Your task to perform on an android device: open app "Clock" (install if not already installed) Image 0: 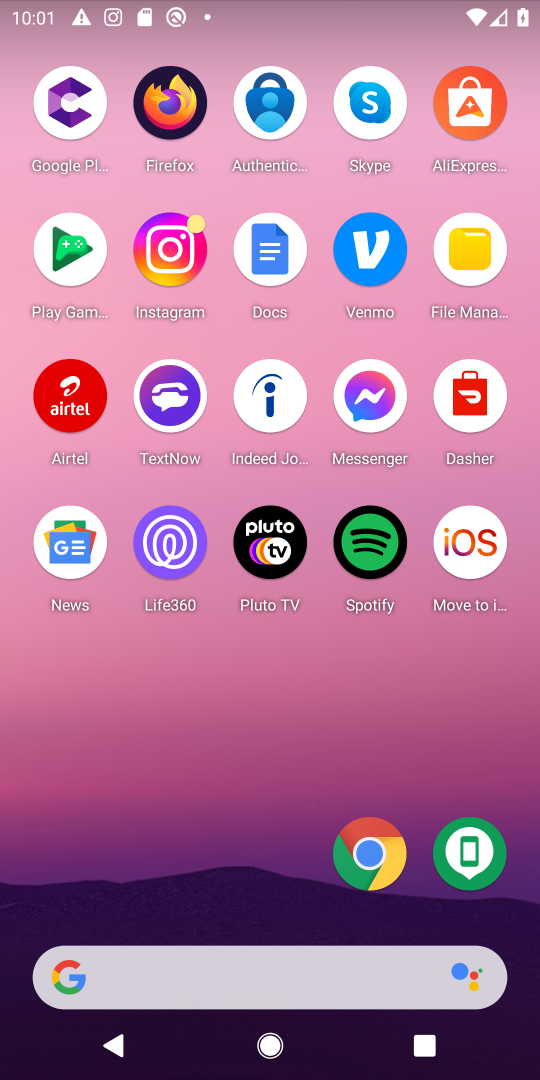
Step 0: drag from (217, 828) to (215, 29)
Your task to perform on an android device: open app "Clock" (install if not already installed) Image 1: 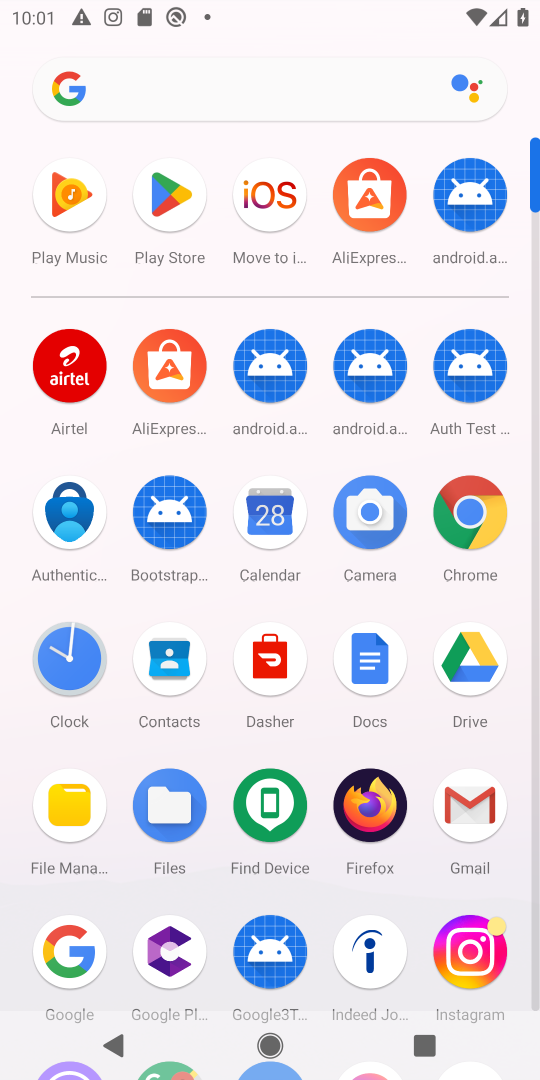
Step 1: click (158, 243)
Your task to perform on an android device: open app "Clock" (install if not already installed) Image 2: 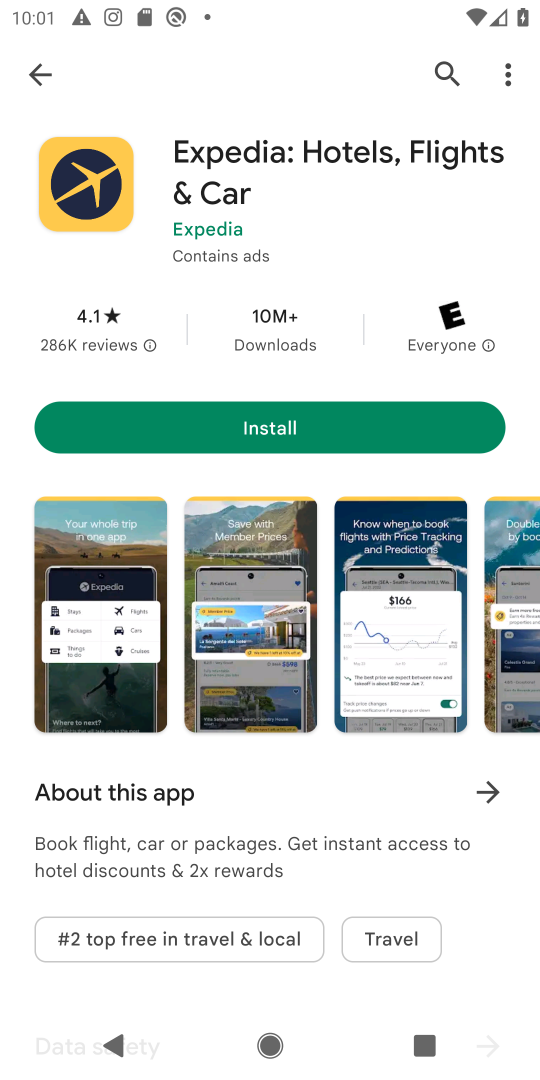
Step 2: click (40, 67)
Your task to perform on an android device: open app "Clock" (install if not already installed) Image 3: 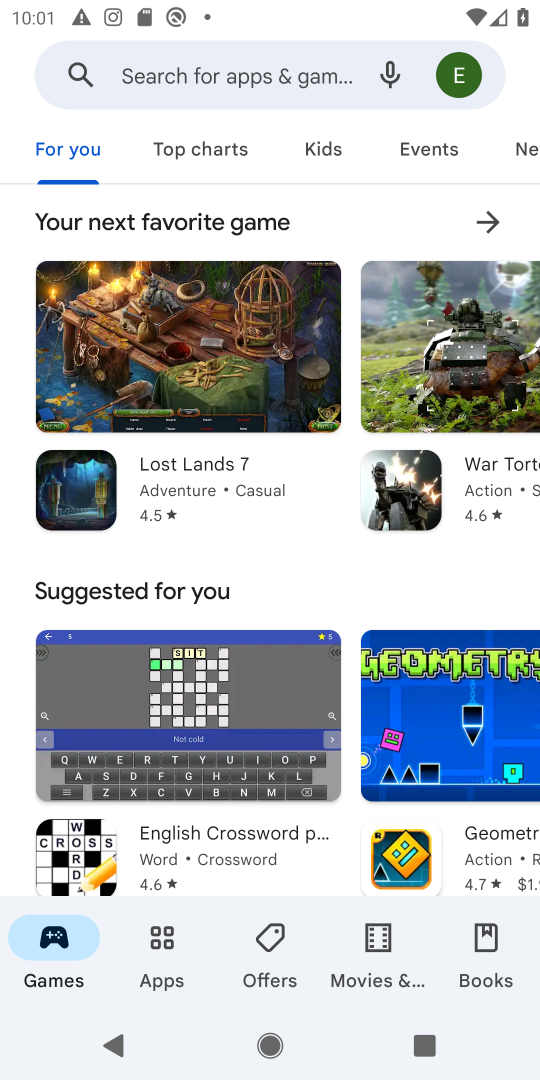
Step 3: click (194, 67)
Your task to perform on an android device: open app "Clock" (install if not already installed) Image 4: 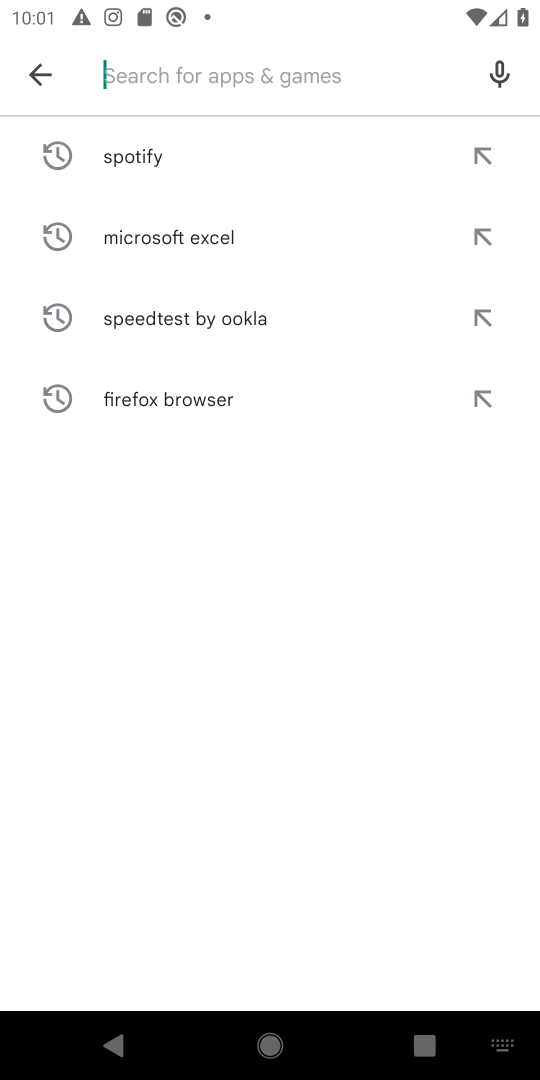
Step 4: type "Clock"
Your task to perform on an android device: open app "Clock" (install if not already installed) Image 5: 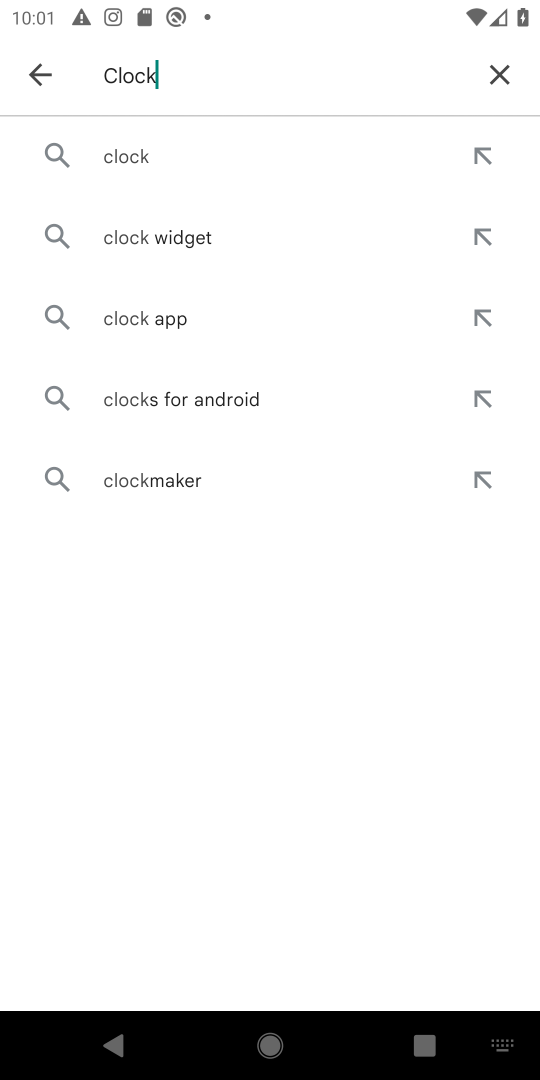
Step 5: click (124, 158)
Your task to perform on an android device: open app "Clock" (install if not already installed) Image 6: 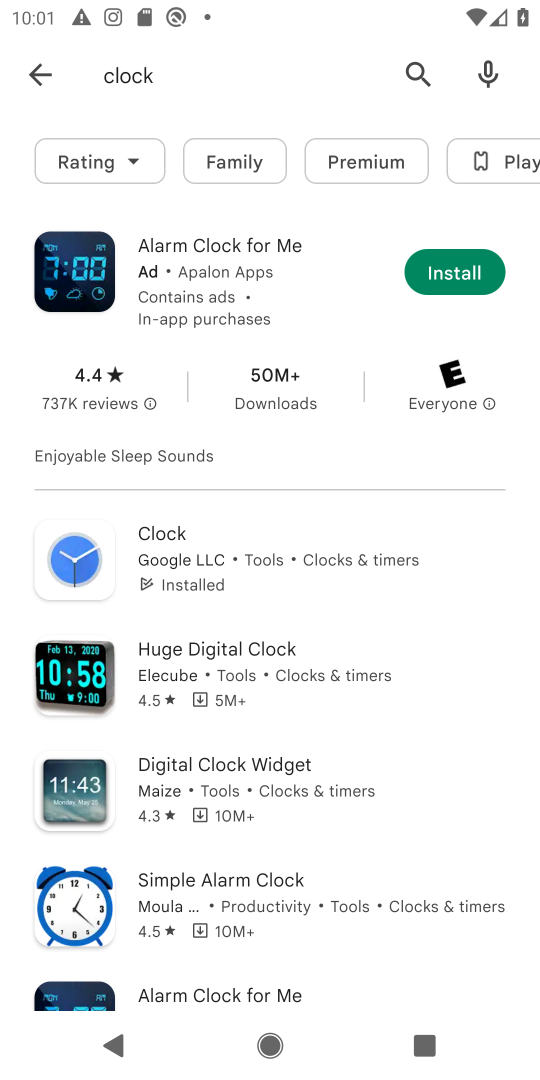
Step 6: click (238, 550)
Your task to perform on an android device: open app "Clock" (install if not already installed) Image 7: 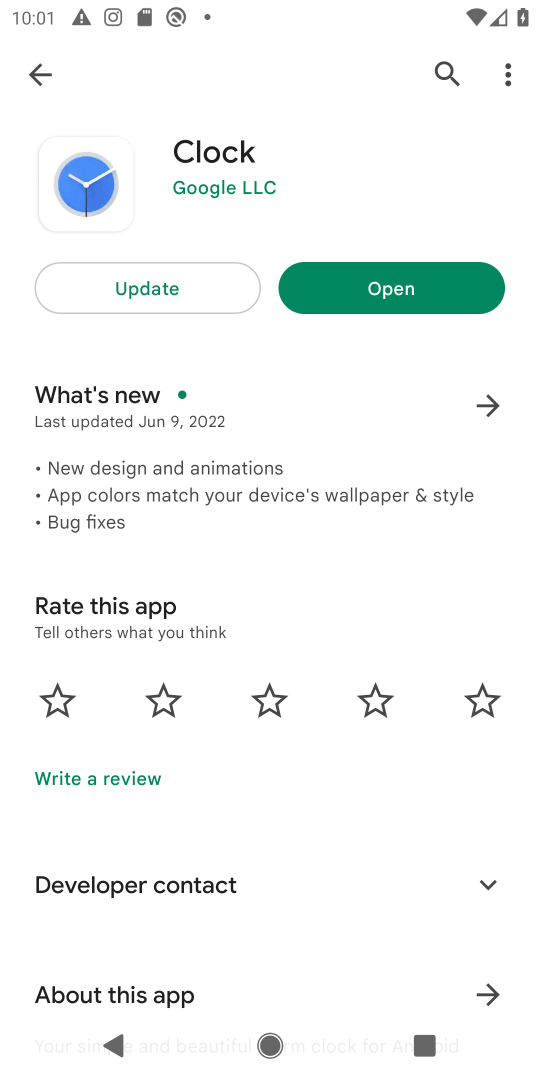
Step 7: click (360, 293)
Your task to perform on an android device: open app "Clock" (install if not already installed) Image 8: 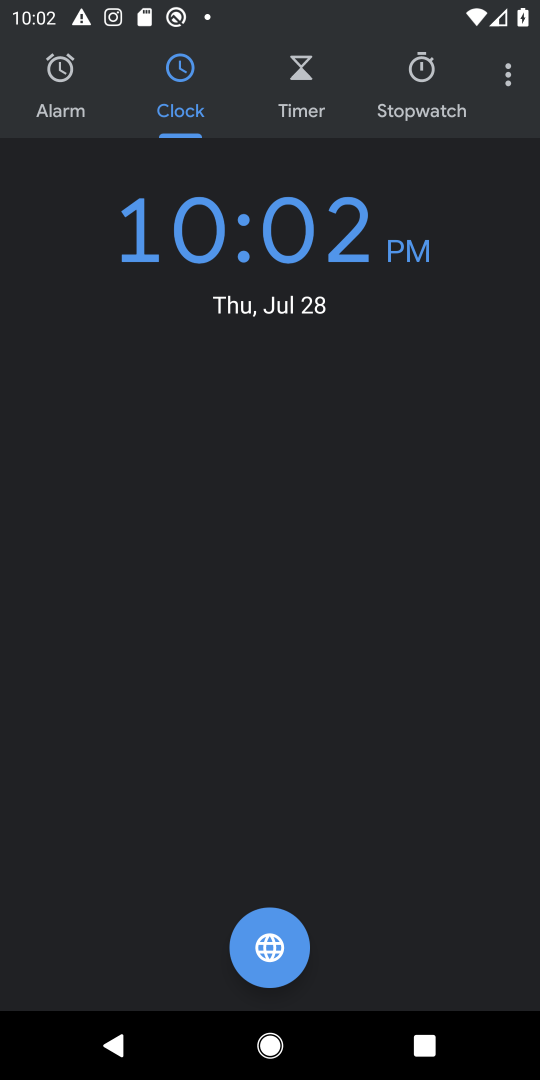
Step 8: task complete